Your task to perform on an android device: Open Maps and search for coffee Image 0: 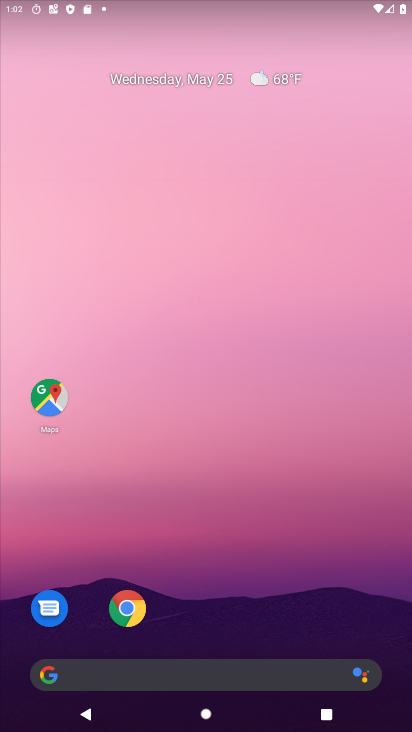
Step 0: click (52, 411)
Your task to perform on an android device: Open Maps and search for coffee Image 1: 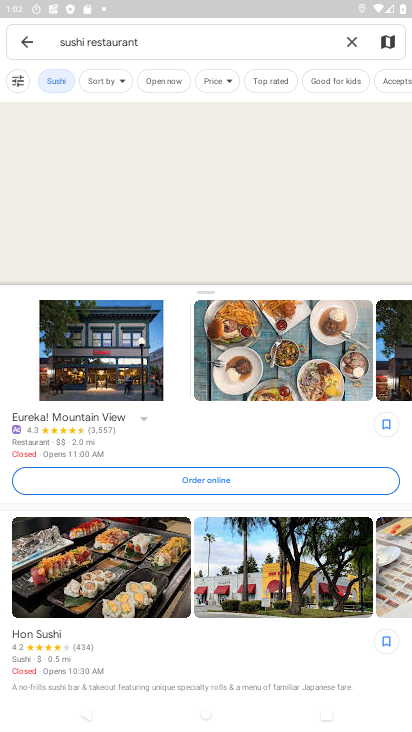
Step 1: click (177, 28)
Your task to perform on an android device: Open Maps and search for coffee Image 2: 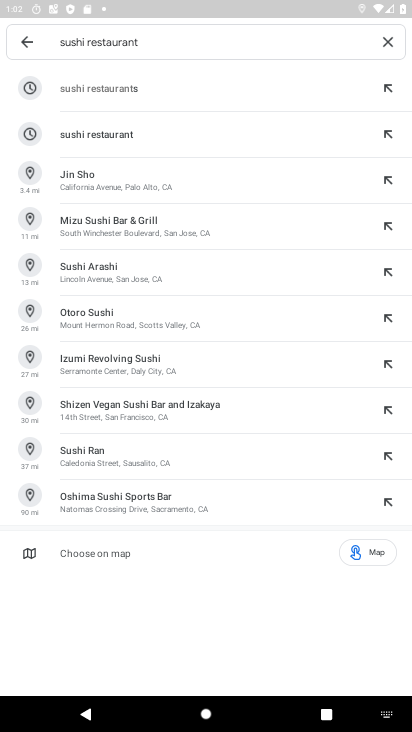
Step 2: type "coffee"
Your task to perform on an android device: Open Maps and search for coffee Image 3: 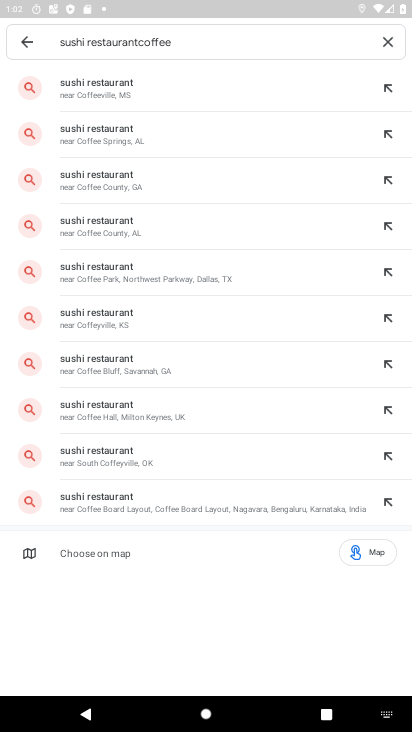
Step 3: click (391, 42)
Your task to perform on an android device: Open Maps and search for coffee Image 4: 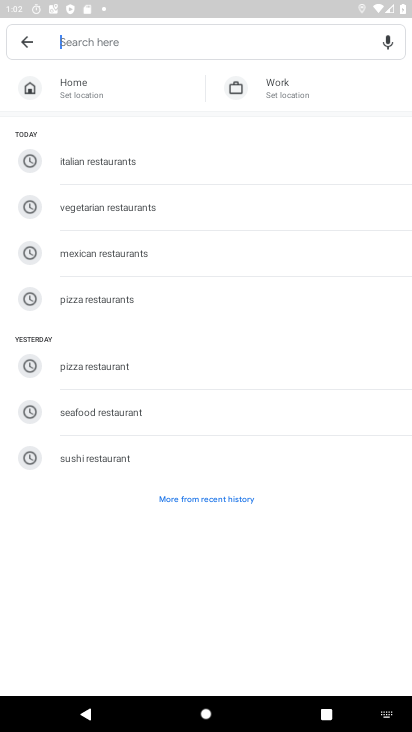
Step 4: type "coffee"
Your task to perform on an android device: Open Maps and search for coffee Image 5: 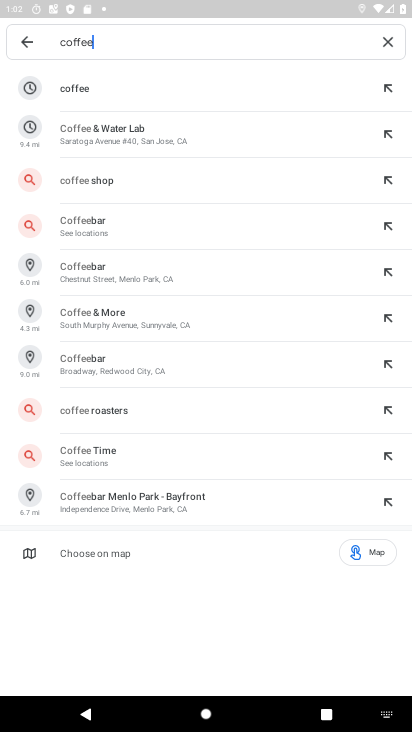
Step 5: click (133, 87)
Your task to perform on an android device: Open Maps and search for coffee Image 6: 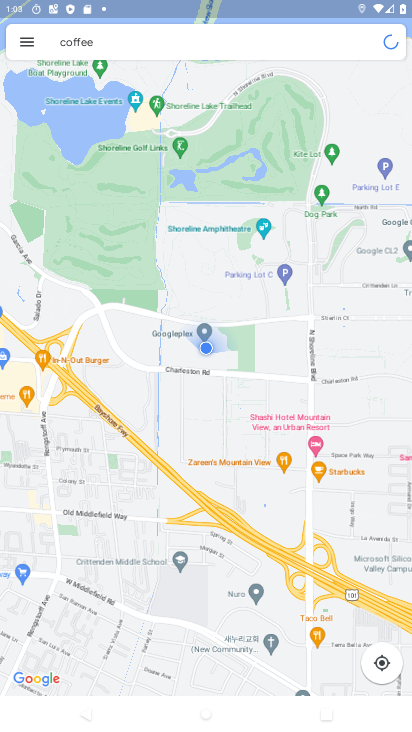
Step 6: task complete